Your task to perform on an android device: turn off sleep mode Image 0: 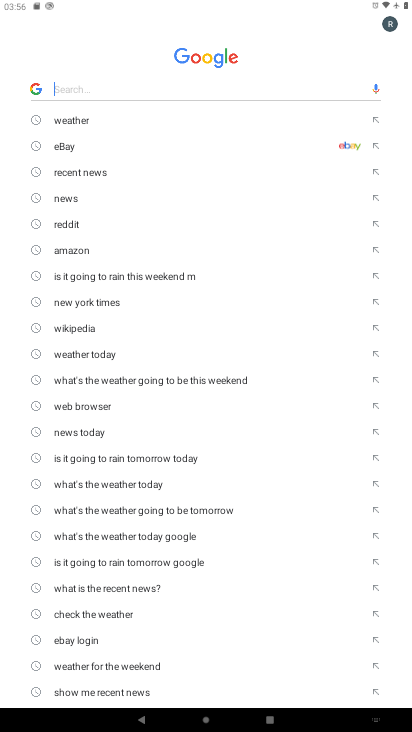
Step 0: press home button
Your task to perform on an android device: turn off sleep mode Image 1: 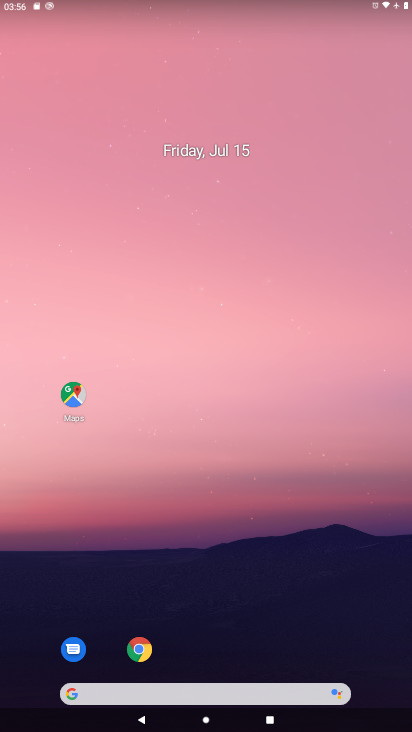
Step 1: drag from (378, 642) to (332, 158)
Your task to perform on an android device: turn off sleep mode Image 2: 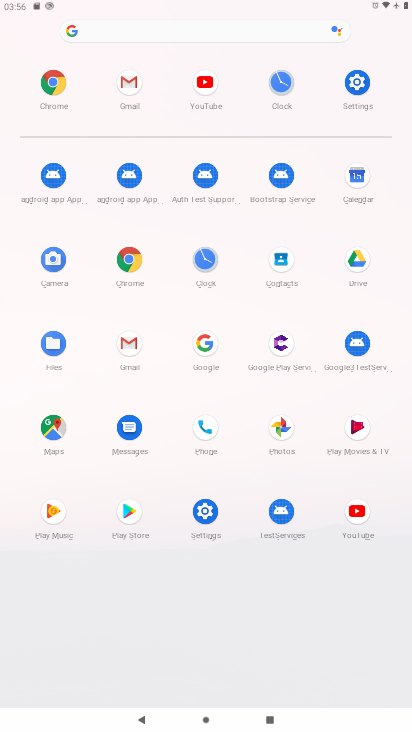
Step 2: click (206, 506)
Your task to perform on an android device: turn off sleep mode Image 3: 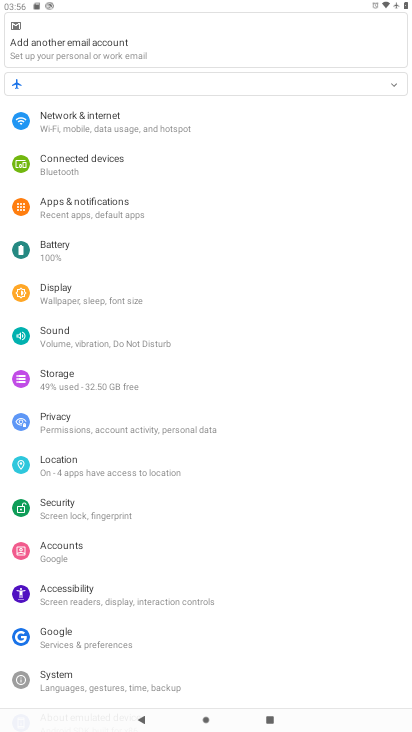
Step 3: click (62, 295)
Your task to perform on an android device: turn off sleep mode Image 4: 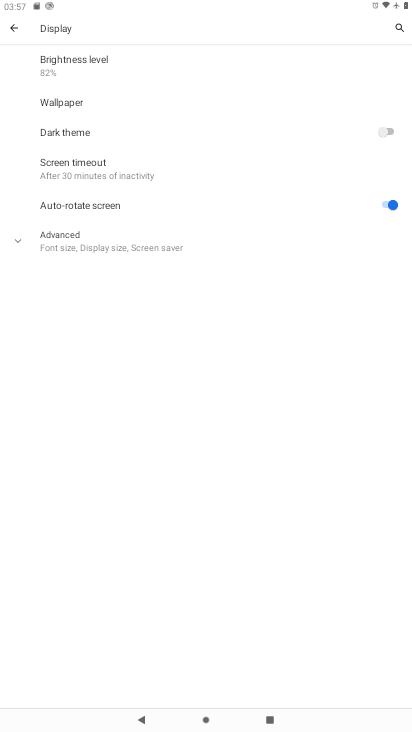
Step 4: click (17, 240)
Your task to perform on an android device: turn off sleep mode Image 5: 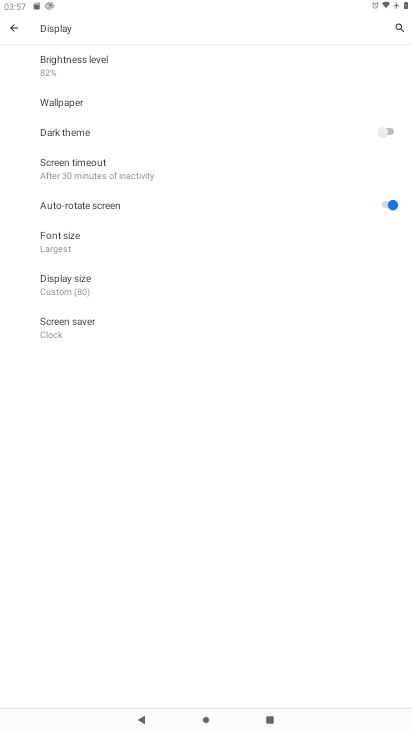
Step 5: task complete